Your task to perform on an android device: allow cookies in the chrome app Image 0: 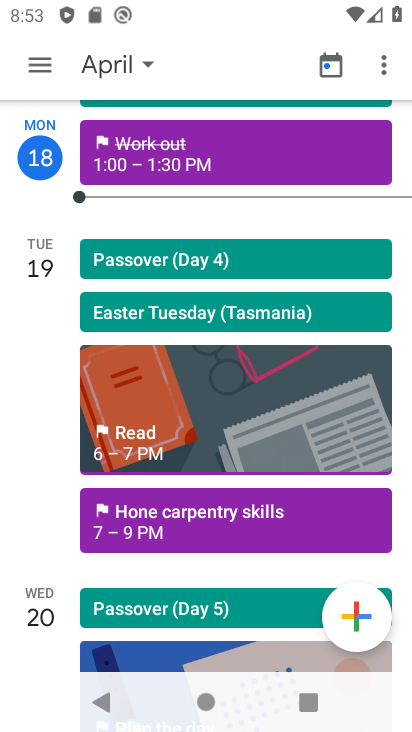
Step 0: press home button
Your task to perform on an android device: allow cookies in the chrome app Image 1: 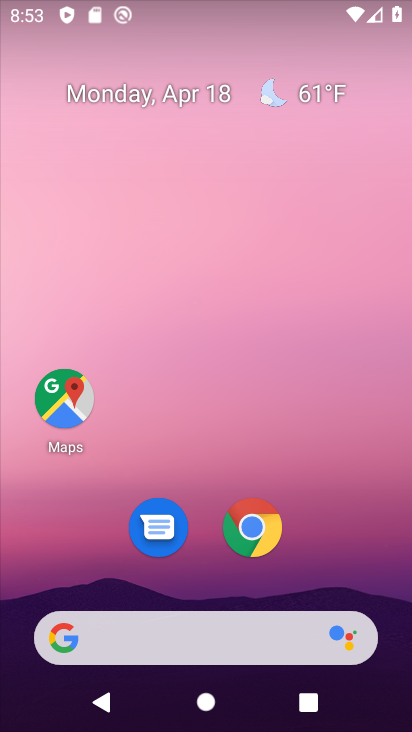
Step 1: click (278, 514)
Your task to perform on an android device: allow cookies in the chrome app Image 2: 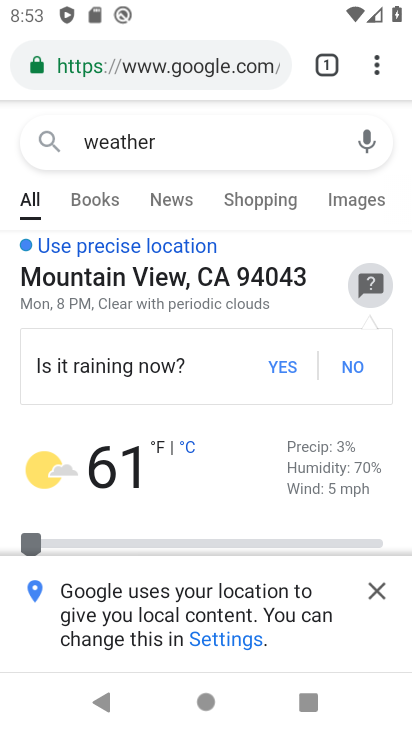
Step 2: click (381, 62)
Your task to perform on an android device: allow cookies in the chrome app Image 3: 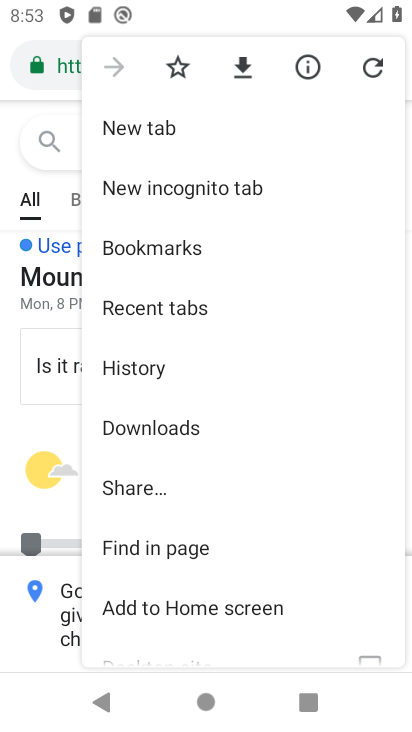
Step 3: drag from (151, 587) to (192, 76)
Your task to perform on an android device: allow cookies in the chrome app Image 4: 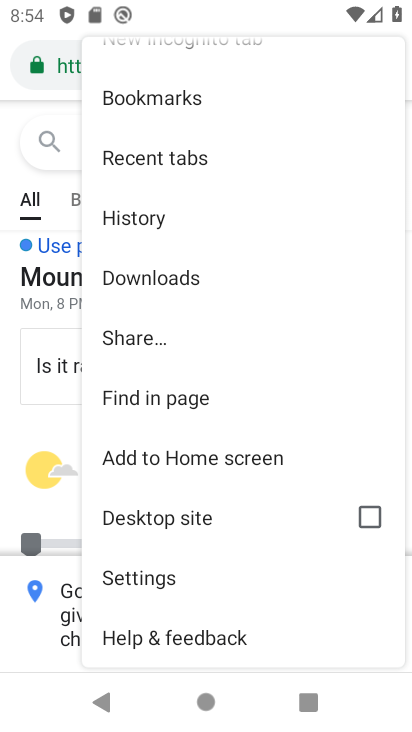
Step 4: click (141, 577)
Your task to perform on an android device: allow cookies in the chrome app Image 5: 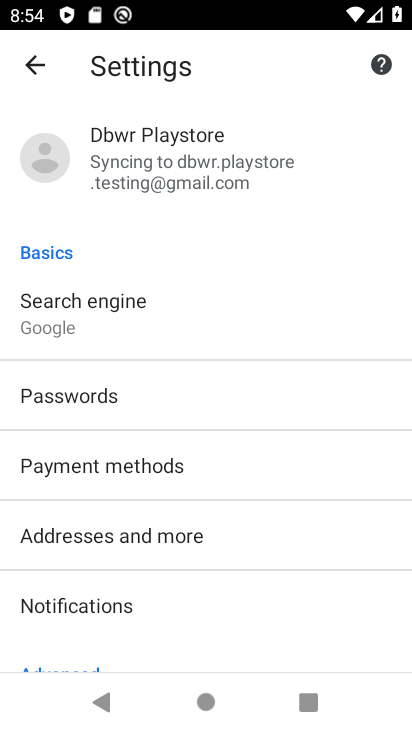
Step 5: drag from (132, 607) to (245, 171)
Your task to perform on an android device: allow cookies in the chrome app Image 6: 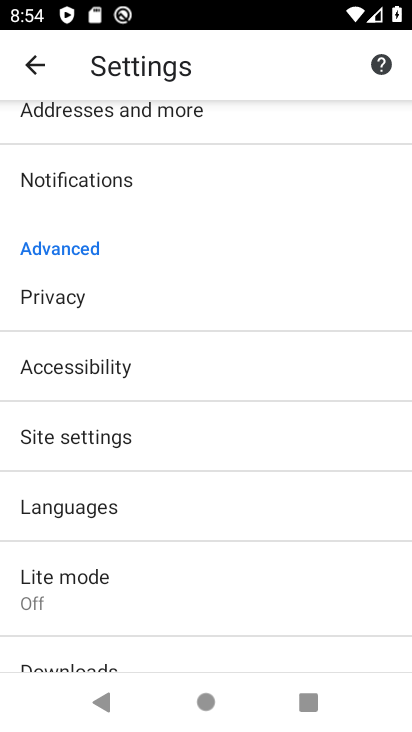
Step 6: click (104, 436)
Your task to perform on an android device: allow cookies in the chrome app Image 7: 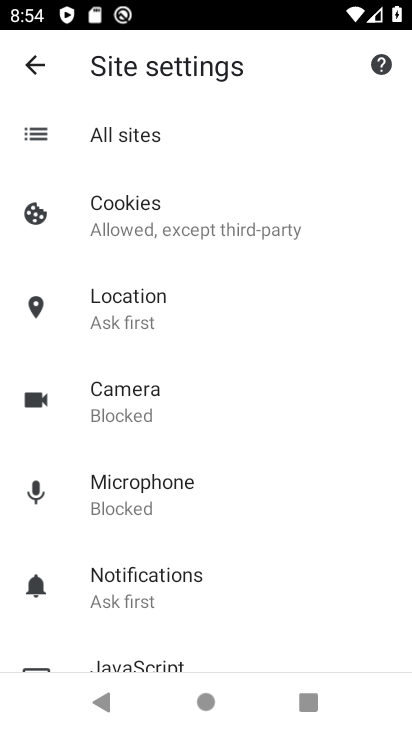
Step 7: click (223, 203)
Your task to perform on an android device: allow cookies in the chrome app Image 8: 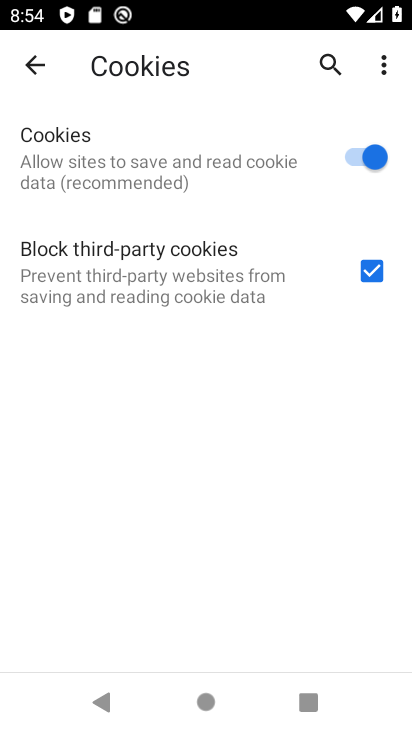
Step 8: task complete